Your task to perform on an android device: Go to Google Image 0: 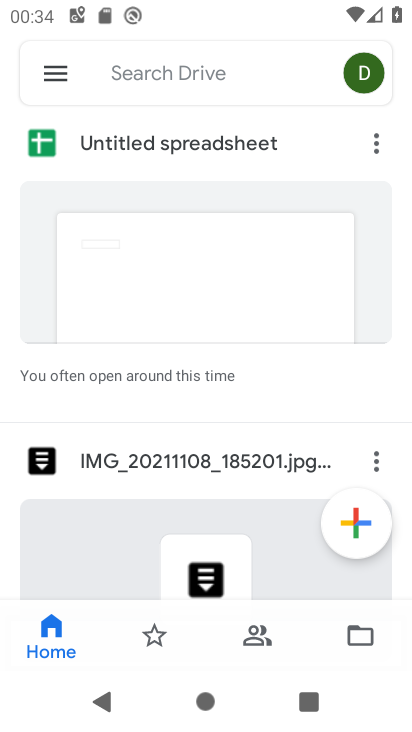
Step 0: press home button
Your task to perform on an android device: Go to Google Image 1: 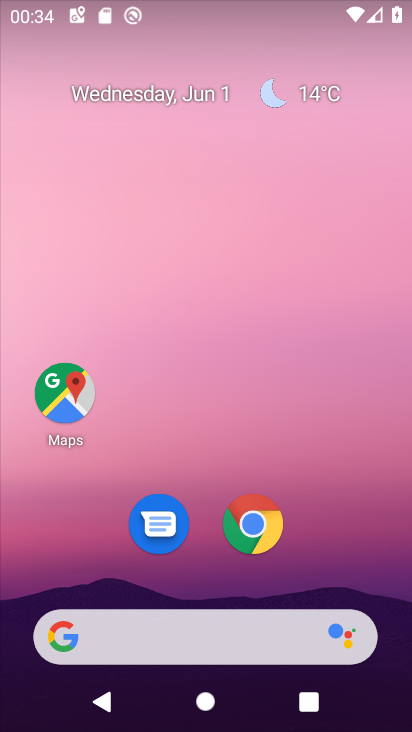
Step 1: click (160, 631)
Your task to perform on an android device: Go to Google Image 2: 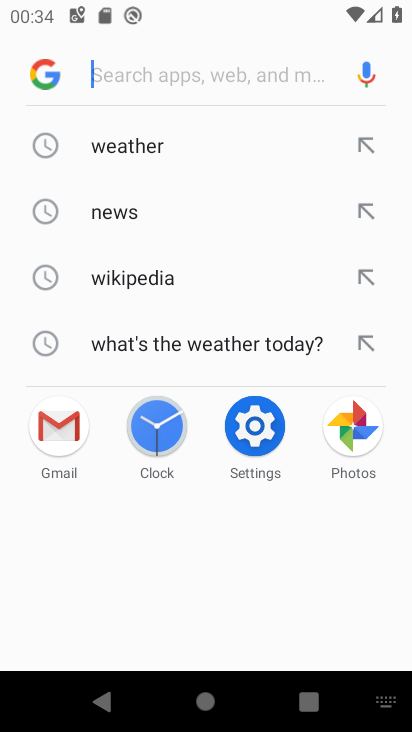
Step 2: click (47, 84)
Your task to perform on an android device: Go to Google Image 3: 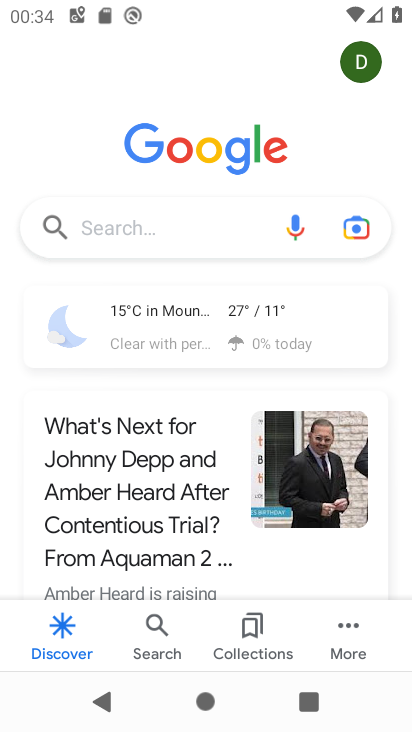
Step 3: task complete